Your task to perform on an android device: open sync settings in chrome Image 0: 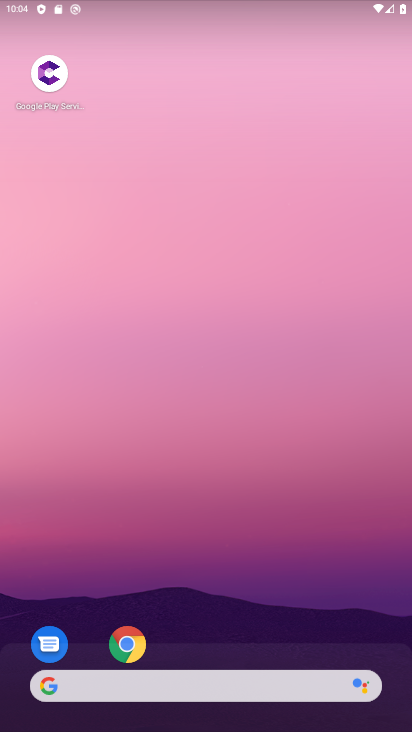
Step 0: press home button
Your task to perform on an android device: open sync settings in chrome Image 1: 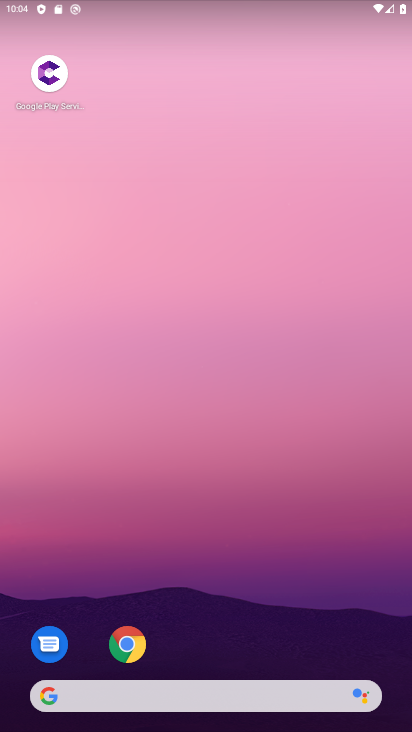
Step 1: press home button
Your task to perform on an android device: open sync settings in chrome Image 2: 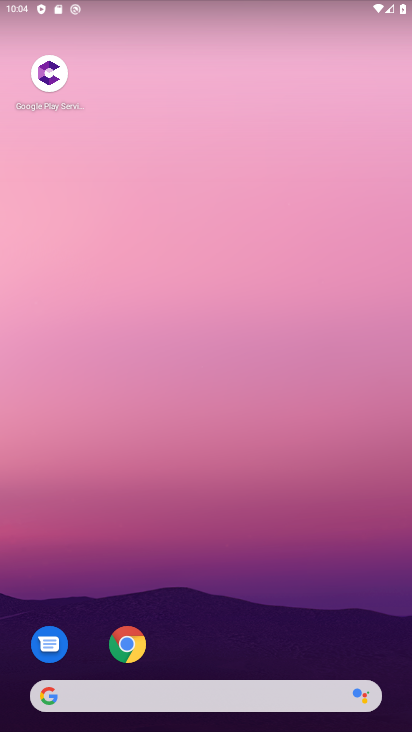
Step 2: drag from (325, 627) to (186, 30)
Your task to perform on an android device: open sync settings in chrome Image 3: 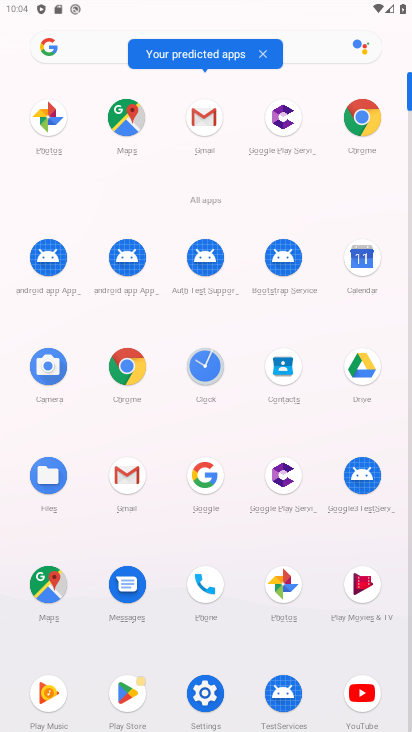
Step 3: click (369, 122)
Your task to perform on an android device: open sync settings in chrome Image 4: 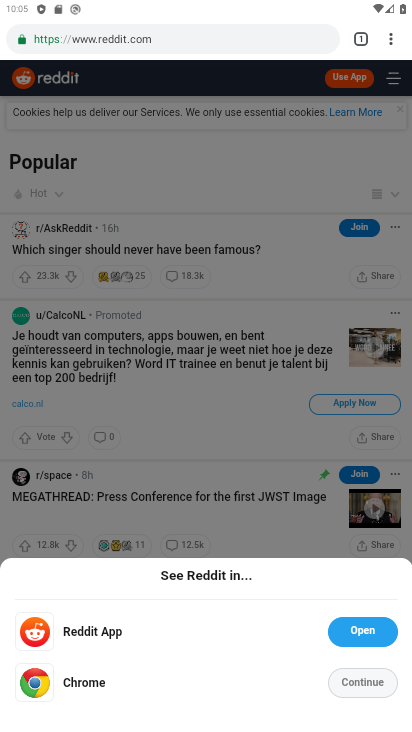
Step 4: drag from (391, 28) to (239, 471)
Your task to perform on an android device: open sync settings in chrome Image 5: 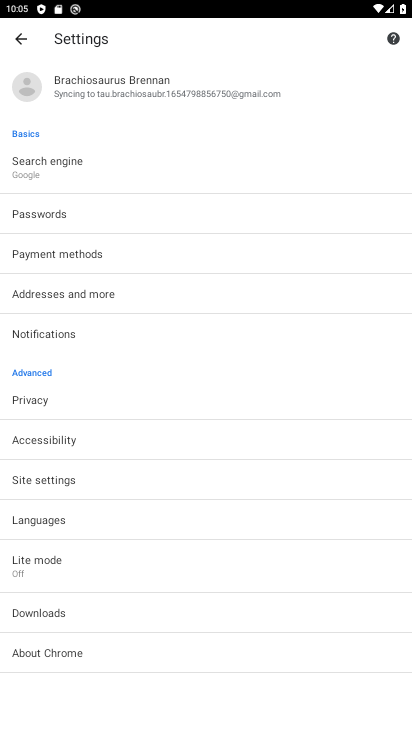
Step 5: click (88, 75)
Your task to perform on an android device: open sync settings in chrome Image 6: 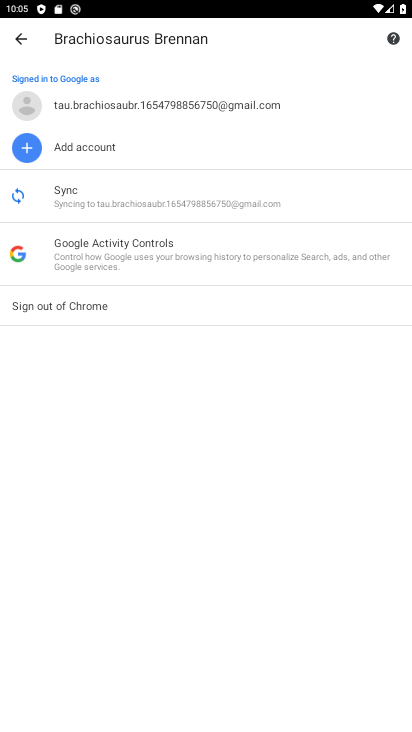
Step 6: click (92, 208)
Your task to perform on an android device: open sync settings in chrome Image 7: 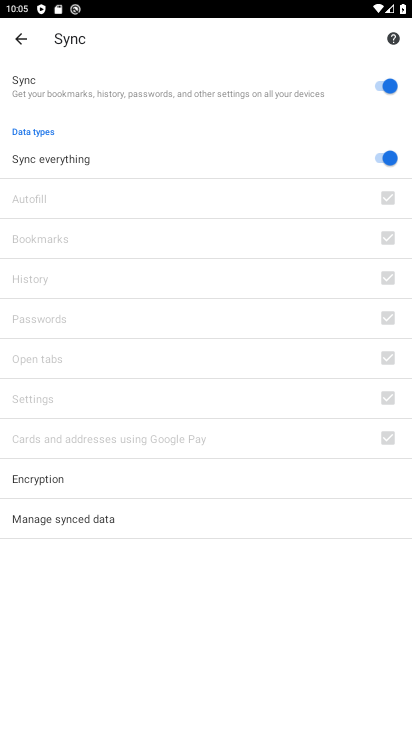
Step 7: task complete